Your task to perform on an android device: Open privacy settings Image 0: 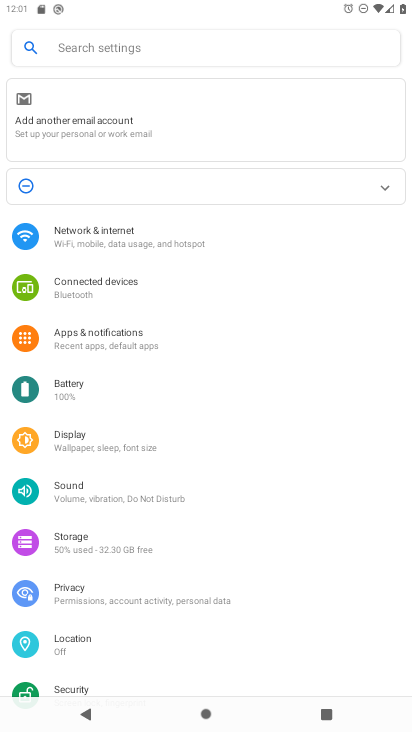
Step 0: drag from (297, 578) to (306, 94)
Your task to perform on an android device: Open privacy settings Image 1: 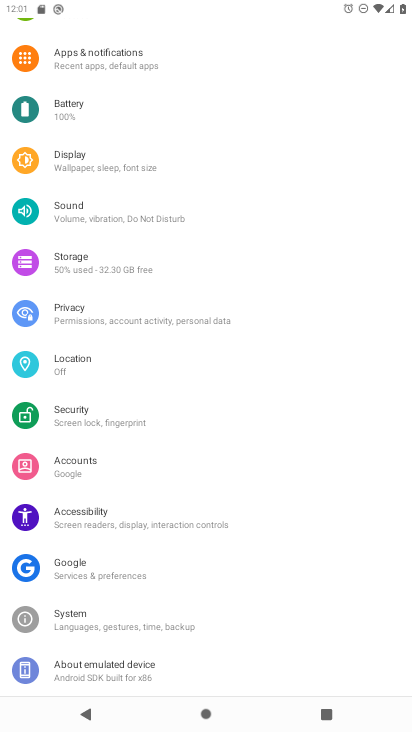
Step 1: click (118, 315)
Your task to perform on an android device: Open privacy settings Image 2: 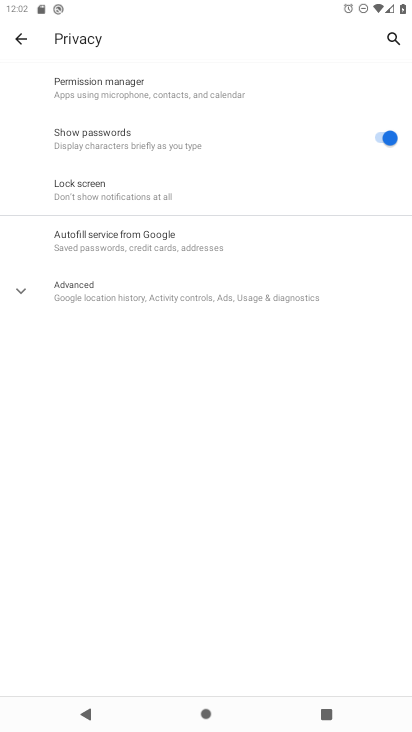
Step 2: task complete